Your task to perform on an android device: Go to network settings Image 0: 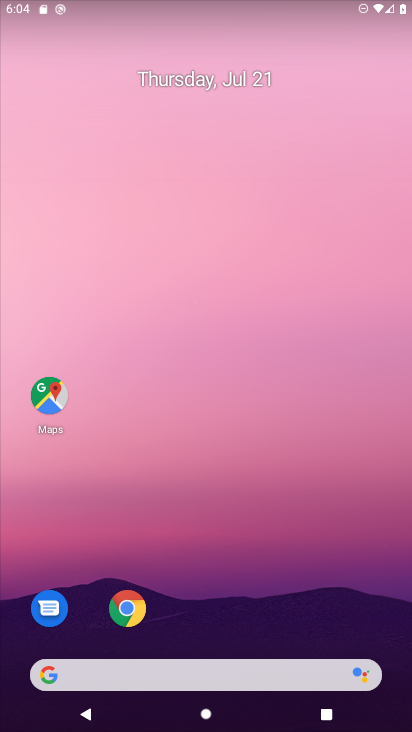
Step 0: drag from (207, 673) to (296, 97)
Your task to perform on an android device: Go to network settings Image 1: 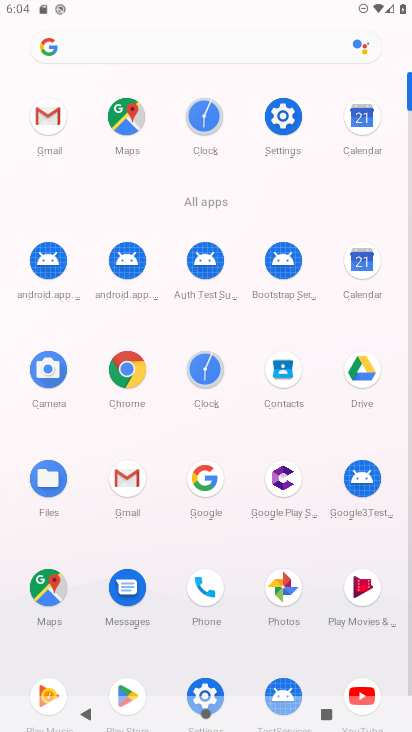
Step 1: click (283, 114)
Your task to perform on an android device: Go to network settings Image 2: 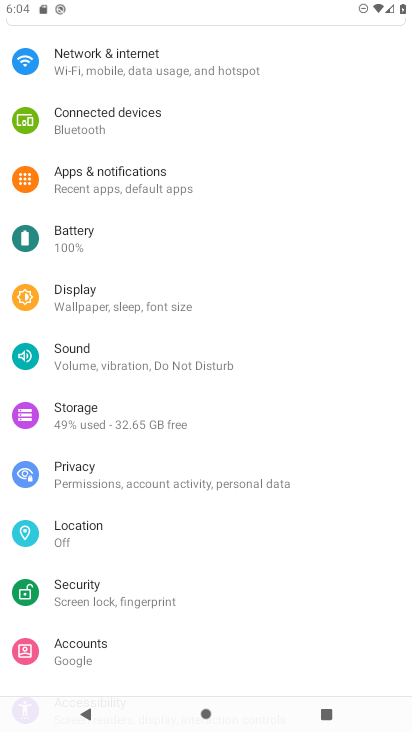
Step 2: click (112, 66)
Your task to perform on an android device: Go to network settings Image 3: 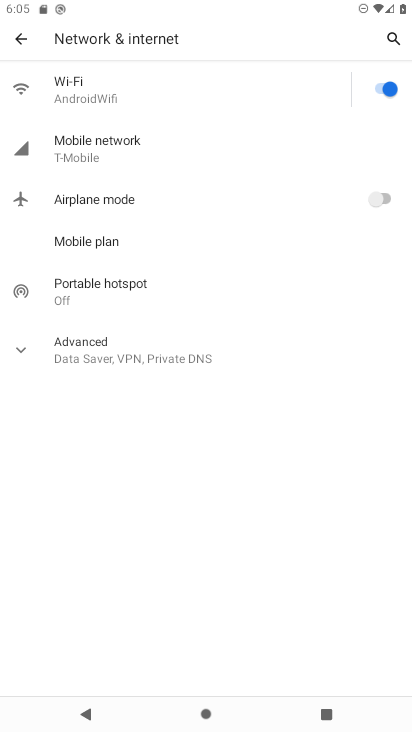
Step 3: task complete